Your task to perform on an android device: Open calendar and show me the fourth week of next month Image 0: 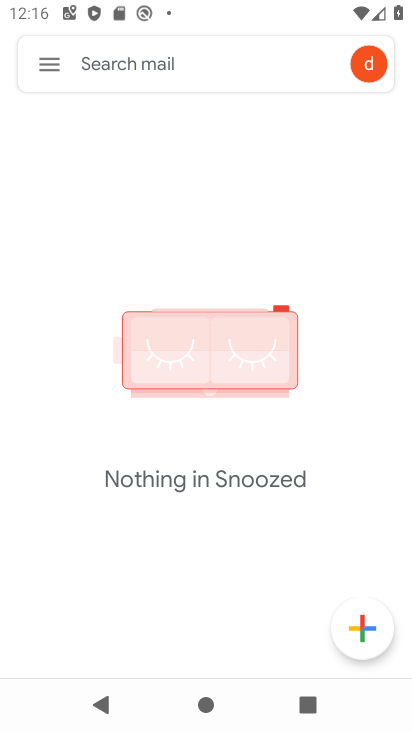
Step 0: press home button
Your task to perform on an android device: Open calendar and show me the fourth week of next month Image 1: 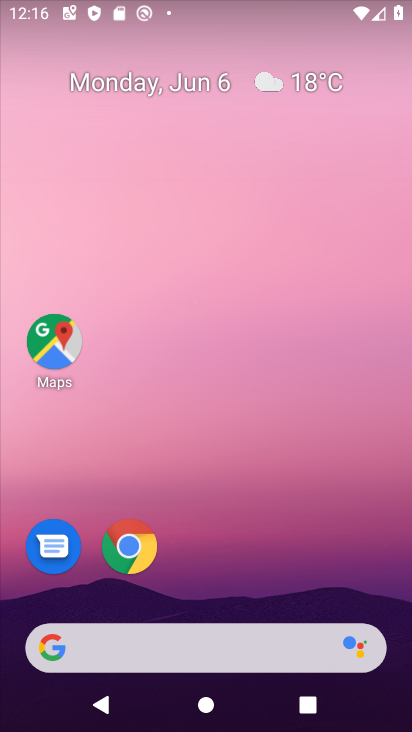
Step 1: drag from (288, 538) to (275, 110)
Your task to perform on an android device: Open calendar and show me the fourth week of next month Image 2: 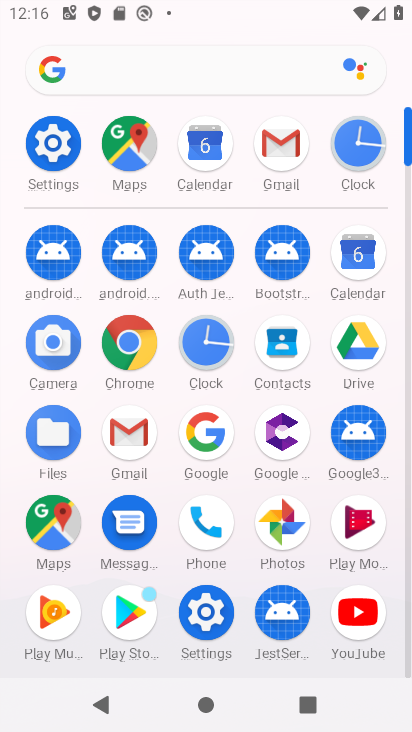
Step 2: click (203, 145)
Your task to perform on an android device: Open calendar and show me the fourth week of next month Image 3: 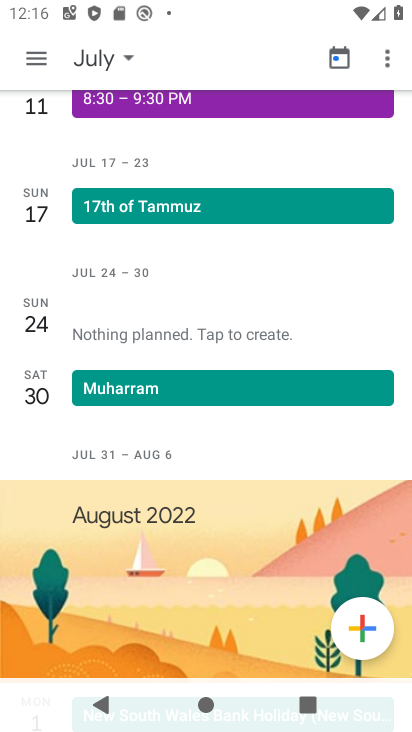
Step 3: drag from (67, 271) to (65, 430)
Your task to perform on an android device: Open calendar and show me the fourth week of next month Image 4: 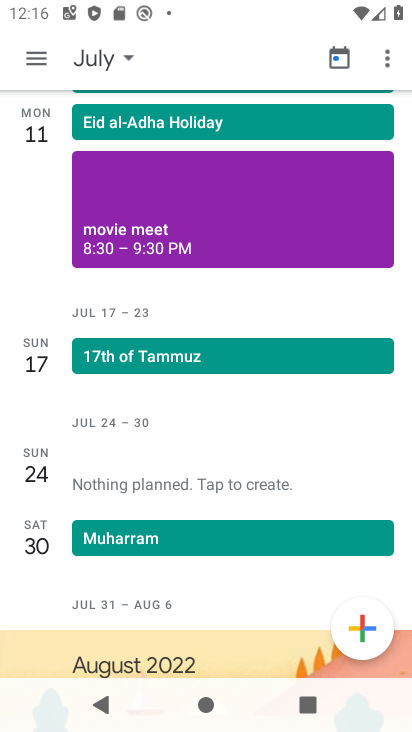
Step 4: click (44, 56)
Your task to perform on an android device: Open calendar and show me the fourth week of next month Image 5: 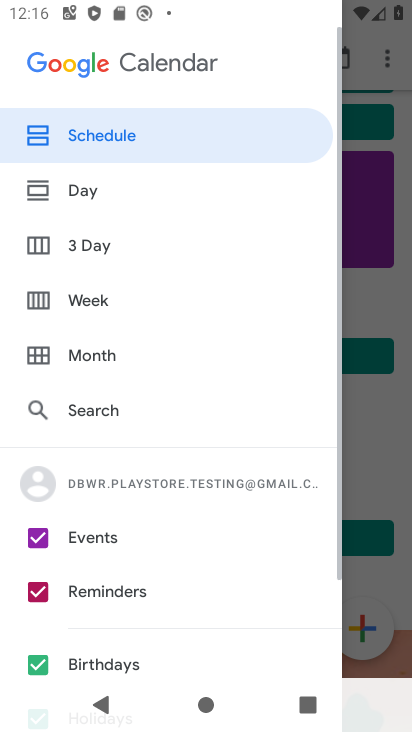
Step 5: click (133, 138)
Your task to perform on an android device: Open calendar and show me the fourth week of next month Image 6: 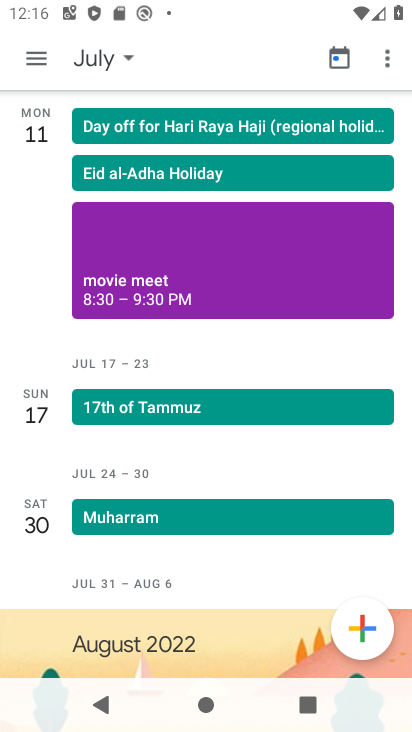
Step 6: task complete